Your task to perform on an android device: Open Reddit.com Image 0: 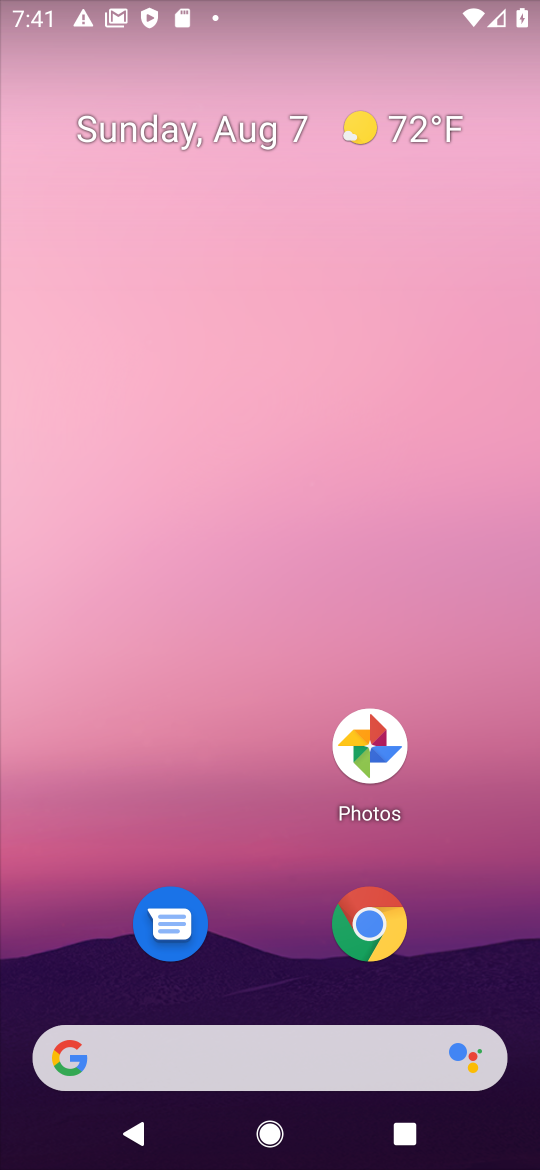
Step 0: press home button
Your task to perform on an android device: Open Reddit.com Image 1: 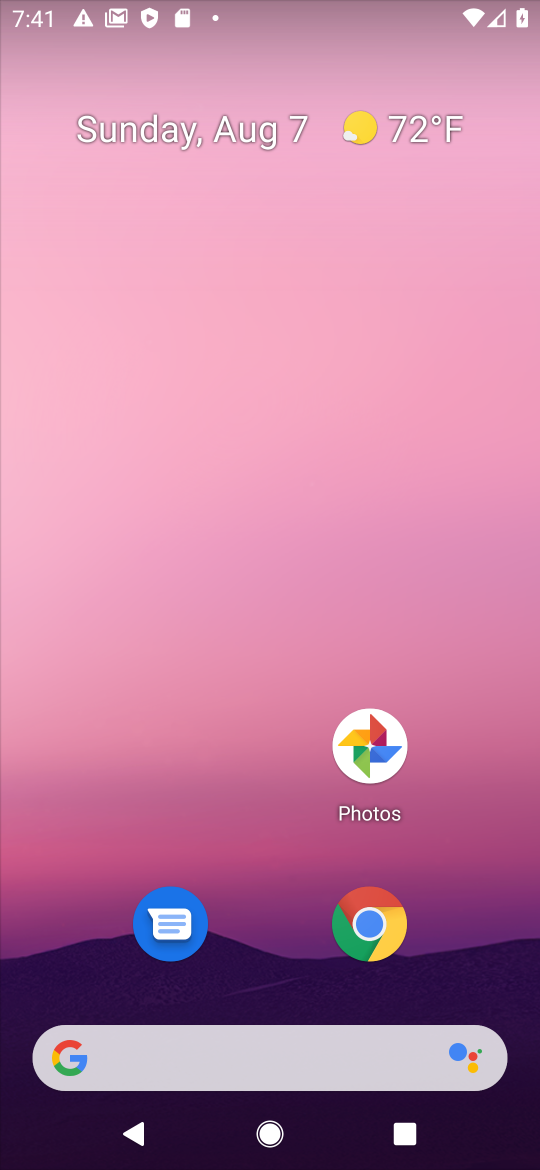
Step 1: drag from (366, 1064) to (290, 233)
Your task to perform on an android device: Open Reddit.com Image 2: 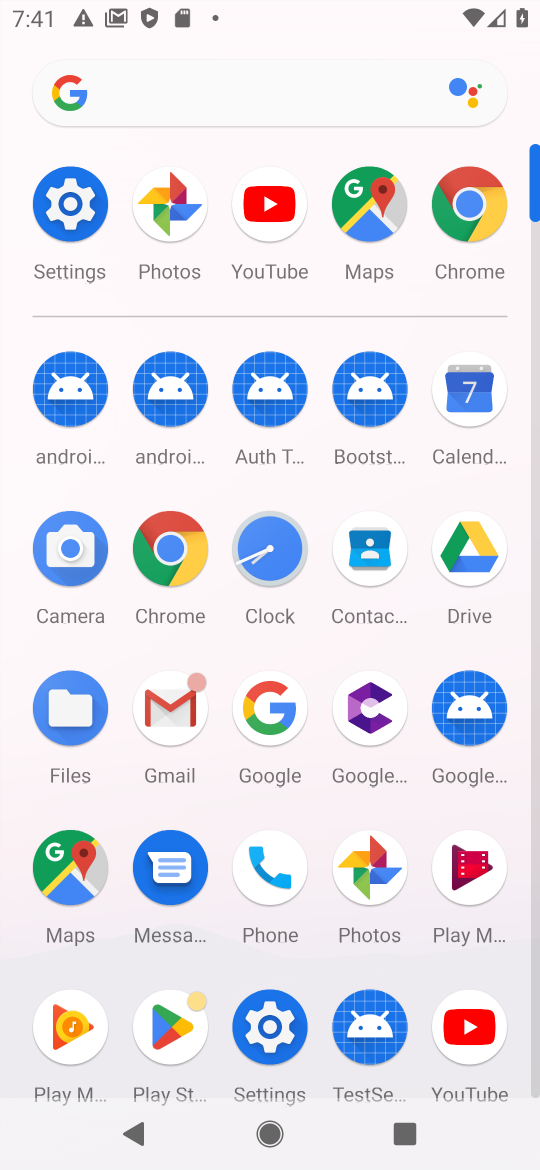
Step 2: click (478, 207)
Your task to perform on an android device: Open Reddit.com Image 3: 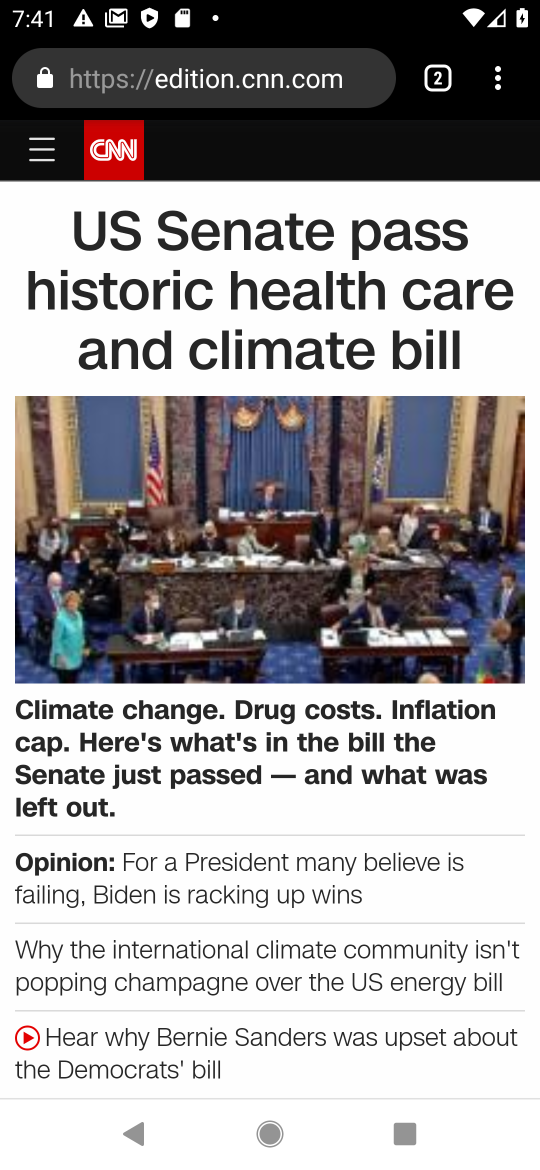
Step 3: click (203, 87)
Your task to perform on an android device: Open Reddit.com Image 4: 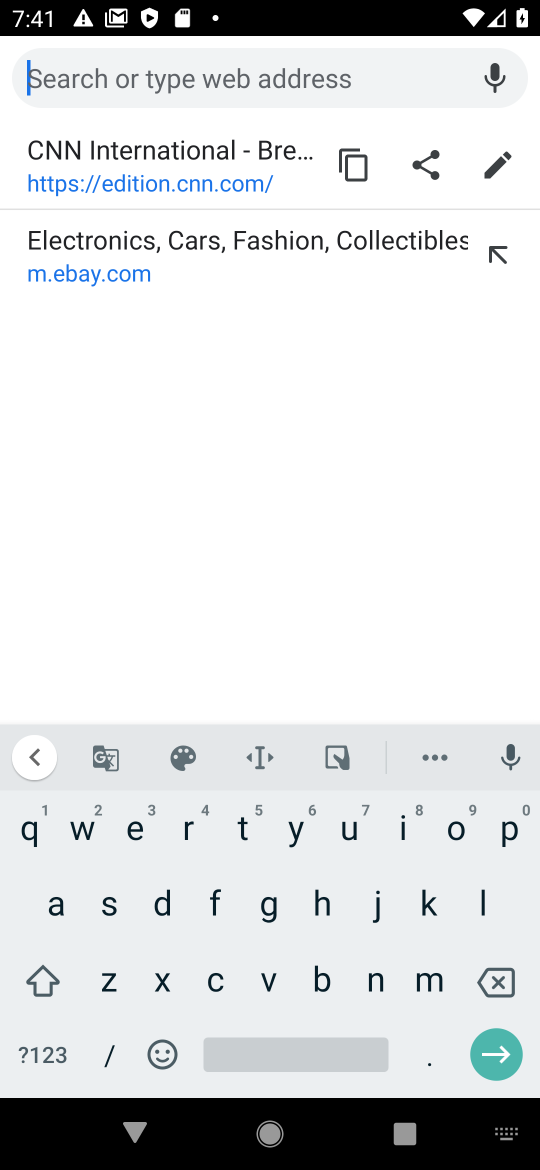
Step 4: click (179, 838)
Your task to perform on an android device: Open Reddit.com Image 5: 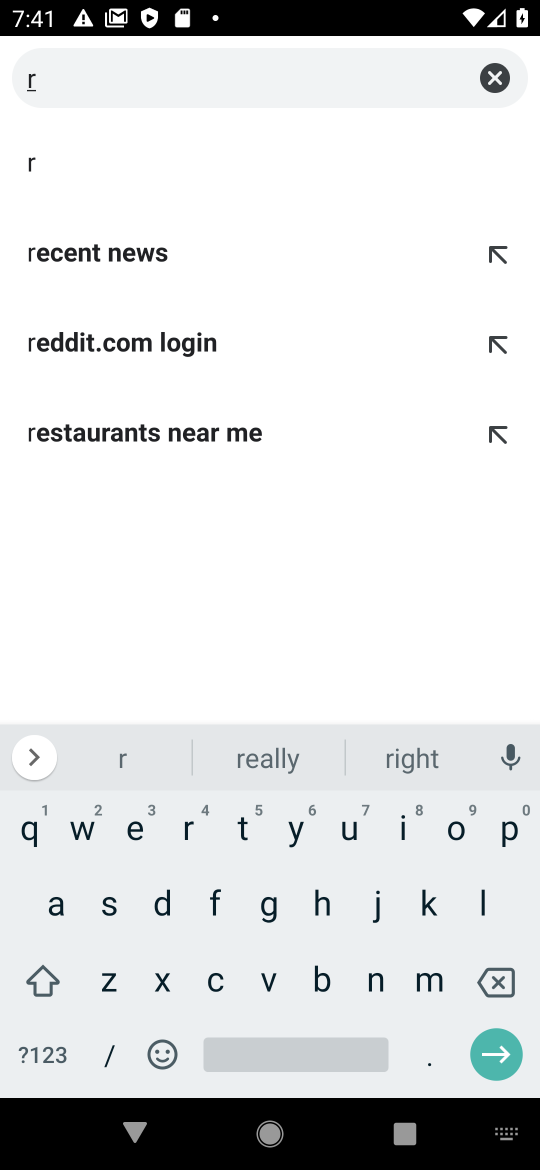
Step 5: click (138, 837)
Your task to perform on an android device: Open Reddit.com Image 6: 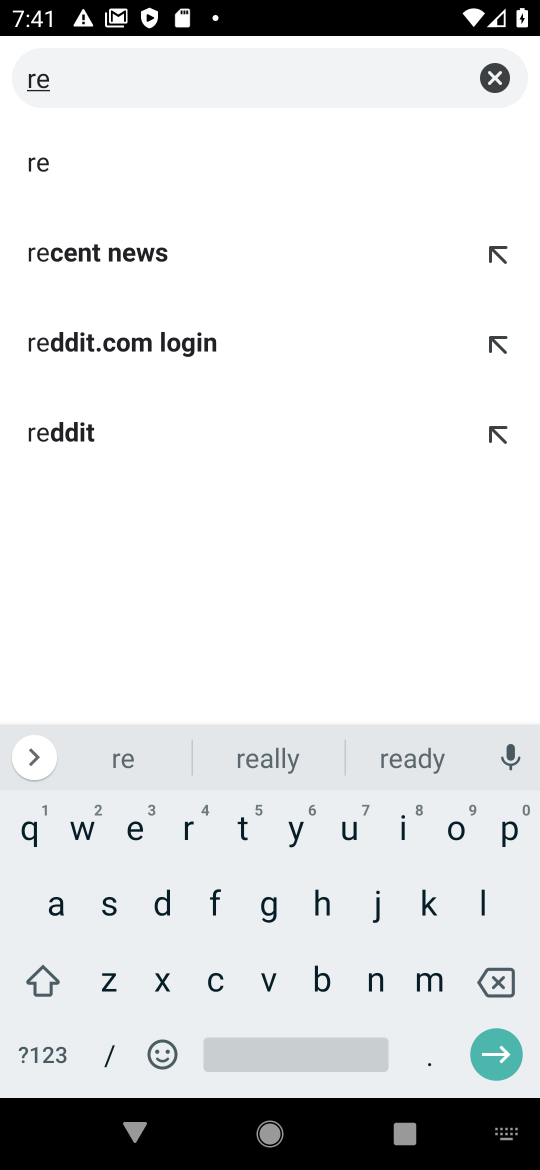
Step 6: click (63, 447)
Your task to perform on an android device: Open Reddit.com Image 7: 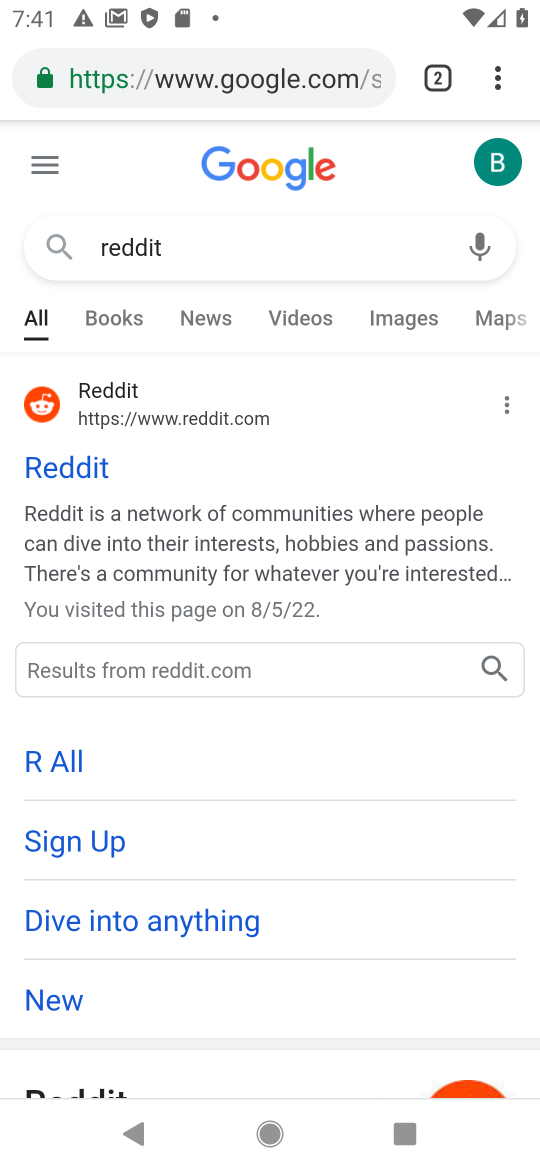
Step 7: click (59, 458)
Your task to perform on an android device: Open Reddit.com Image 8: 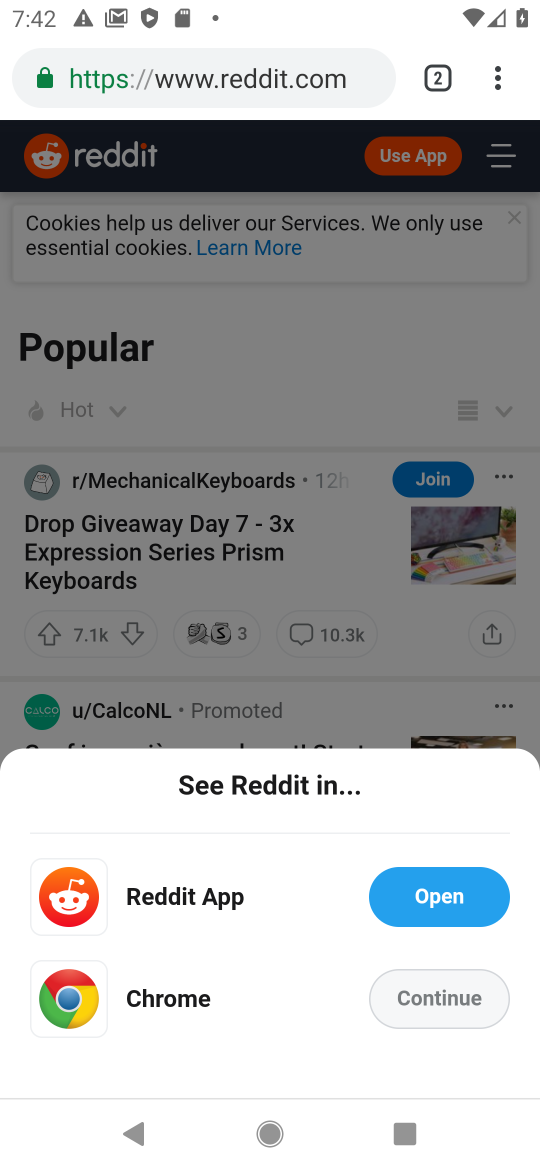
Step 8: click (464, 995)
Your task to perform on an android device: Open Reddit.com Image 9: 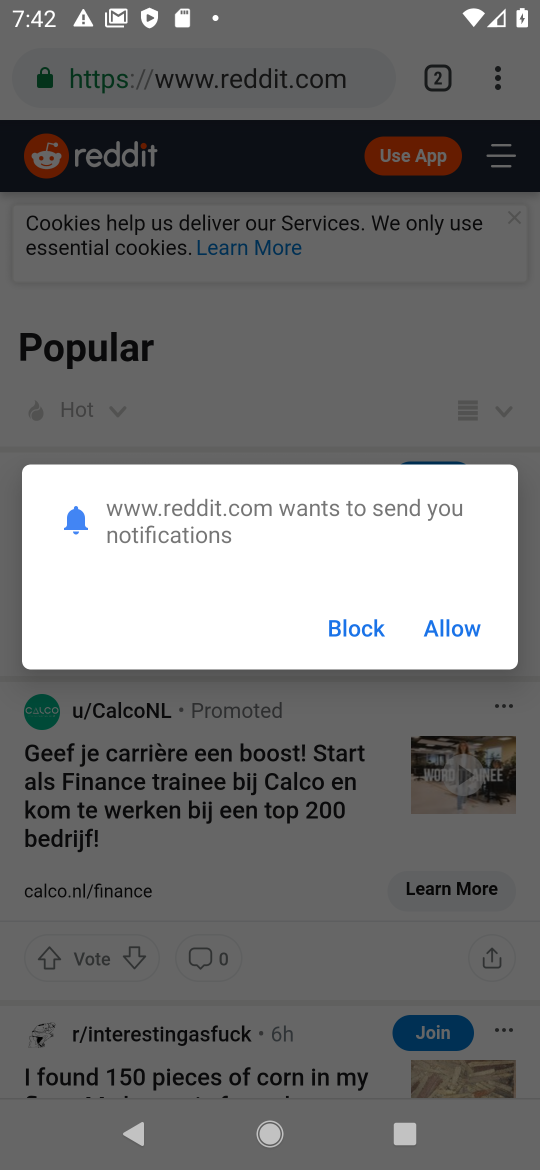
Step 9: click (345, 628)
Your task to perform on an android device: Open Reddit.com Image 10: 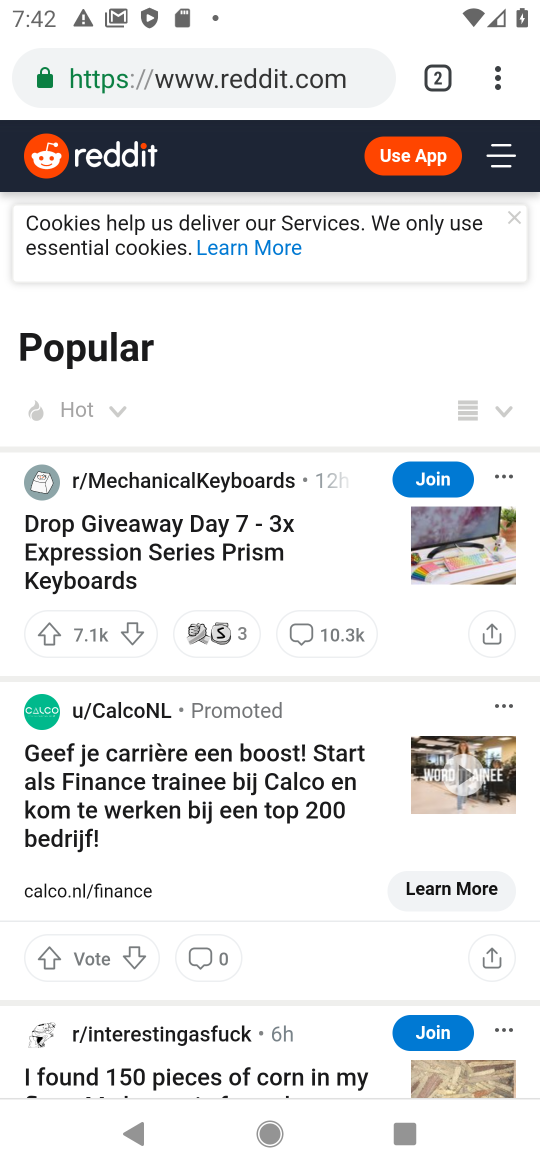
Step 10: task complete